Your task to perform on an android device: clear history in the chrome app Image 0: 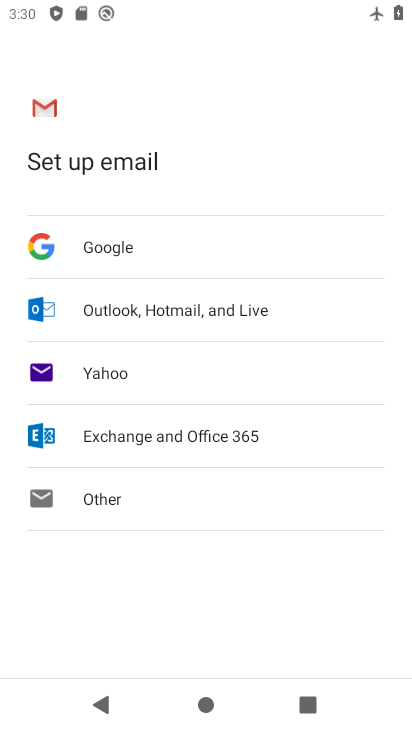
Step 0: press home button
Your task to perform on an android device: clear history in the chrome app Image 1: 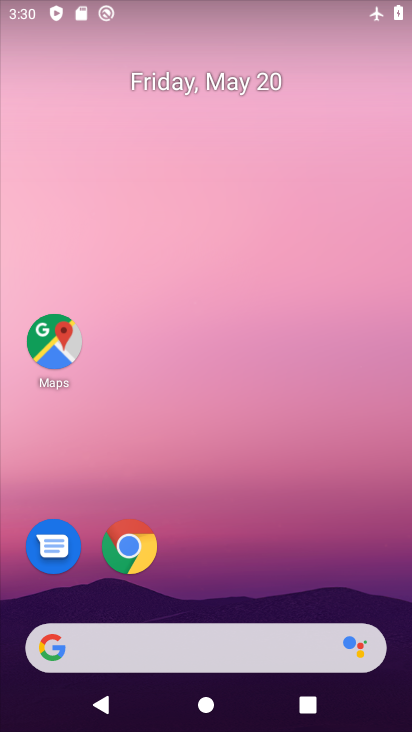
Step 1: click (126, 552)
Your task to perform on an android device: clear history in the chrome app Image 2: 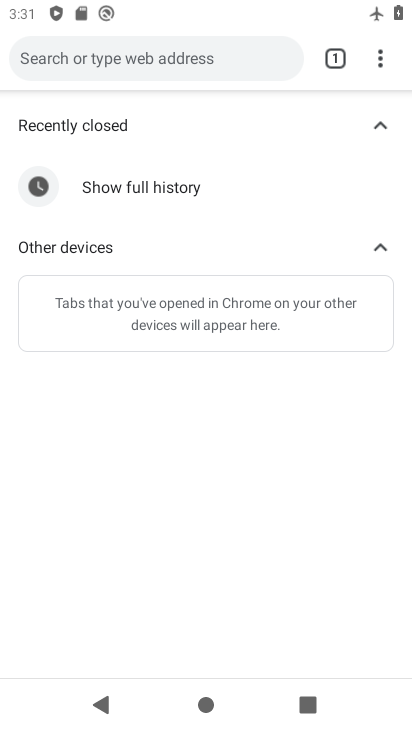
Step 2: task complete